Your task to perform on an android device: Open calendar and show me the third week of next month Image 0: 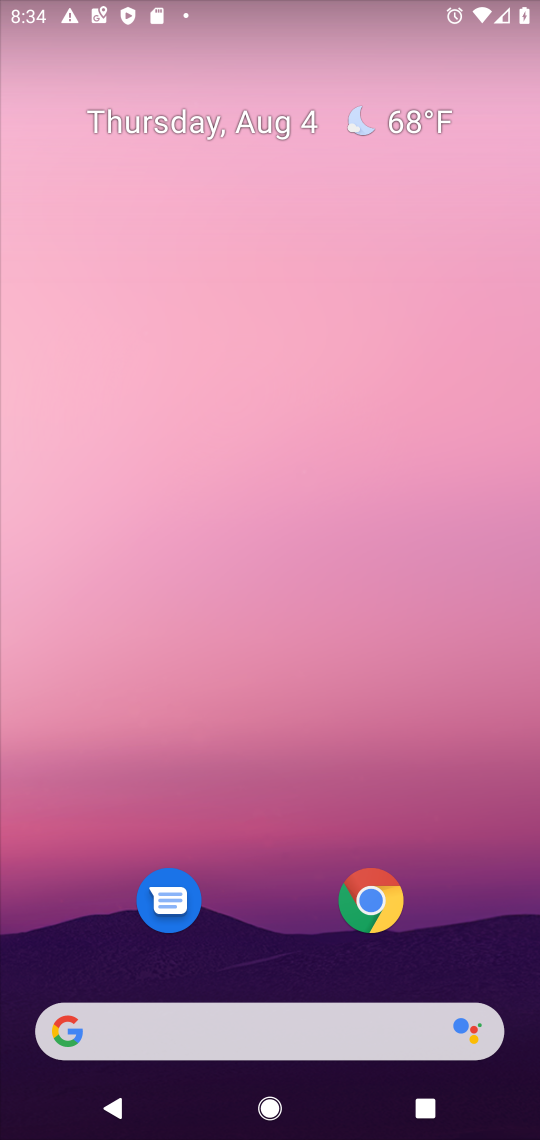
Step 0: drag from (278, 1025) to (239, 143)
Your task to perform on an android device: Open calendar and show me the third week of next month Image 1: 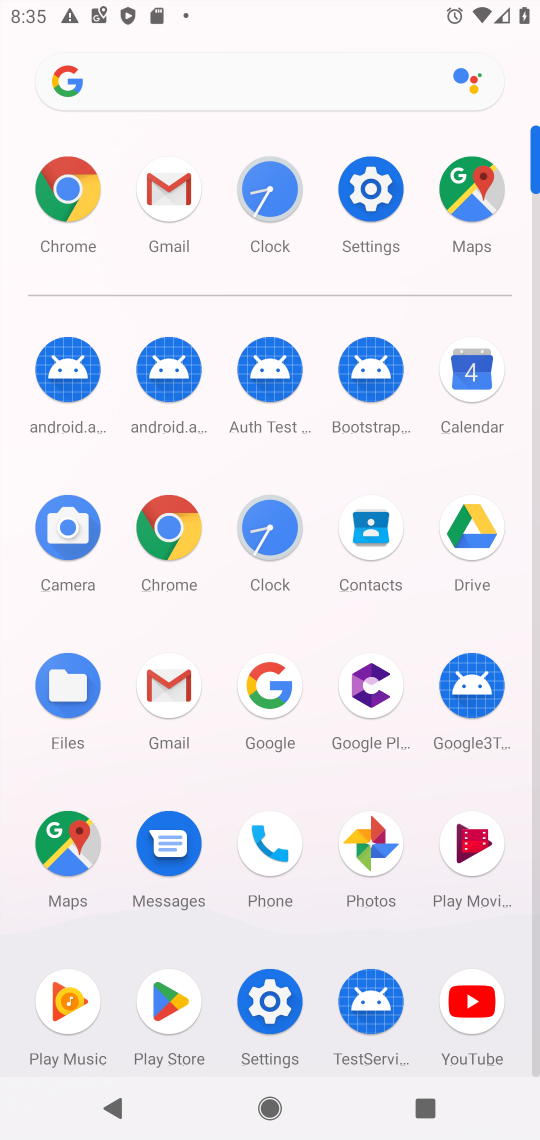
Step 1: click (475, 368)
Your task to perform on an android device: Open calendar and show me the third week of next month Image 2: 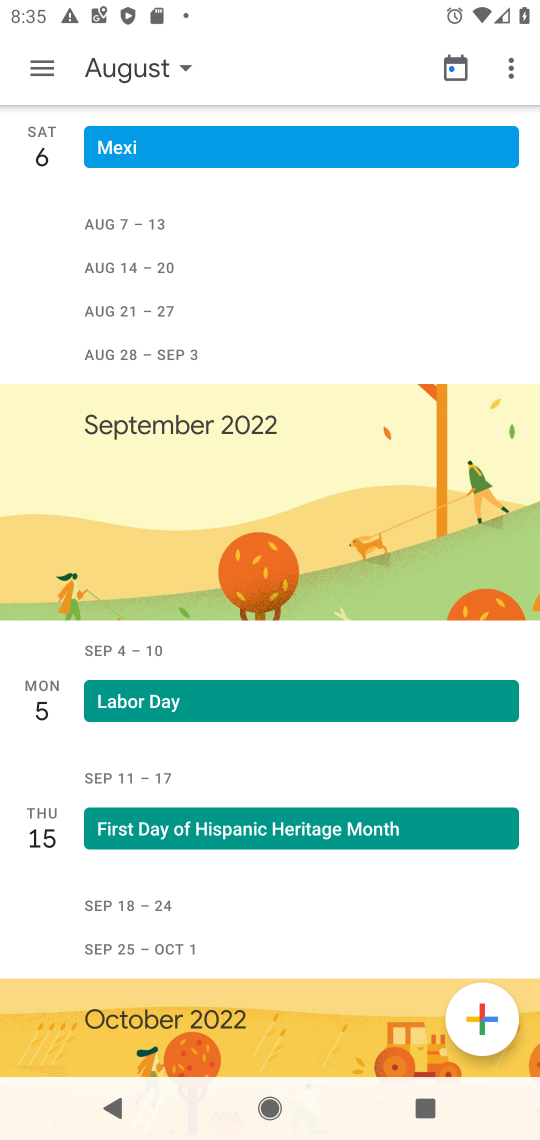
Step 2: click (186, 68)
Your task to perform on an android device: Open calendar and show me the third week of next month Image 3: 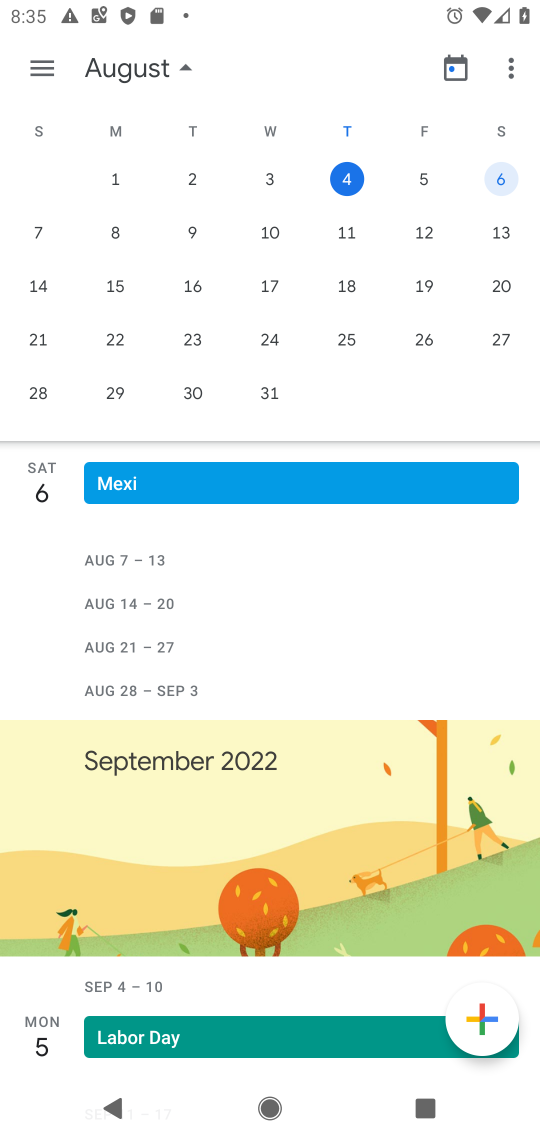
Step 3: drag from (462, 298) to (0, 256)
Your task to perform on an android device: Open calendar and show me the third week of next month Image 4: 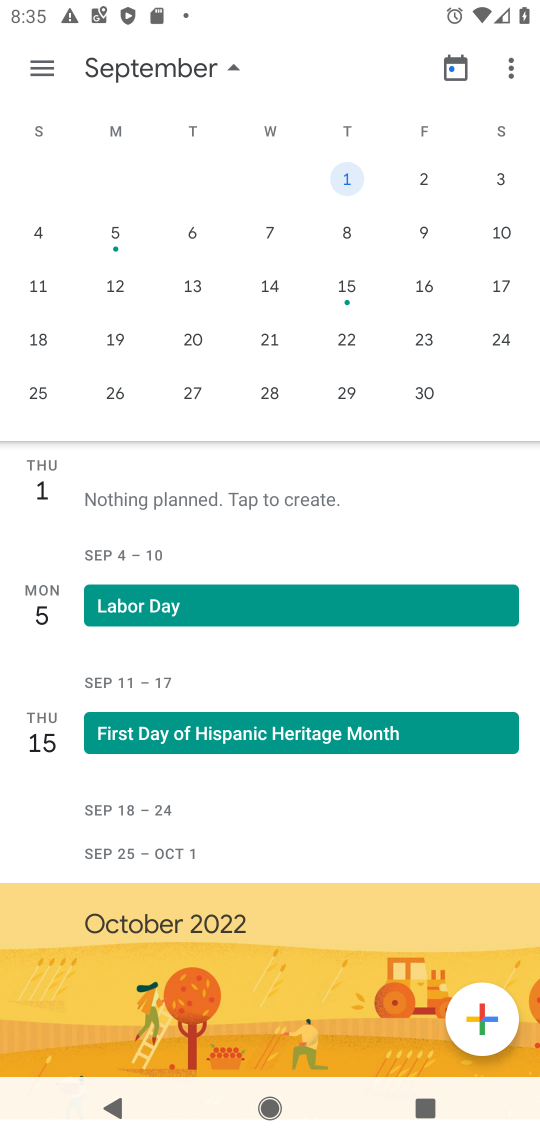
Step 4: click (117, 343)
Your task to perform on an android device: Open calendar and show me the third week of next month Image 5: 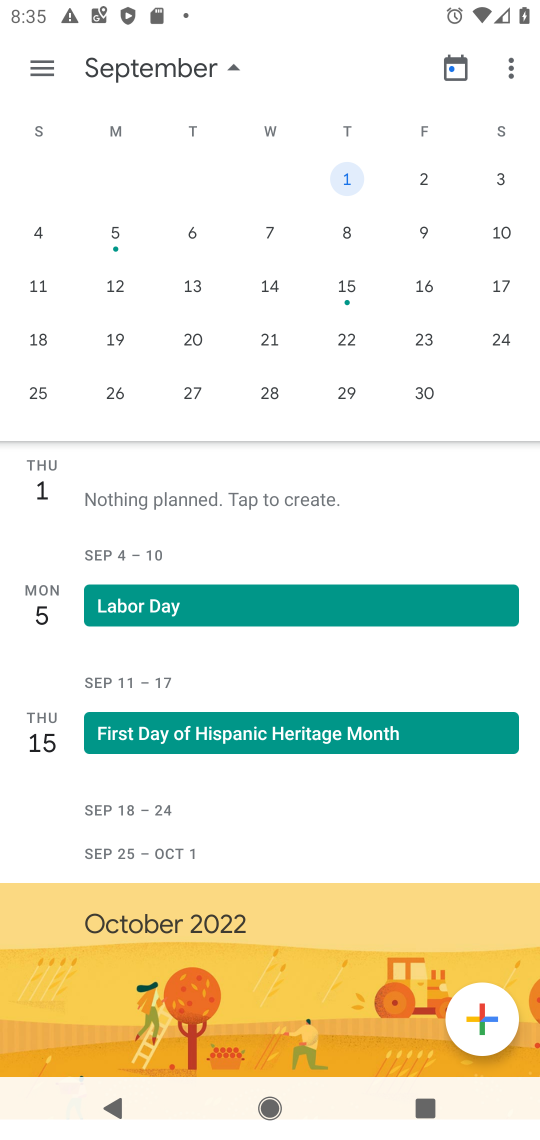
Step 5: click (113, 337)
Your task to perform on an android device: Open calendar and show me the third week of next month Image 6: 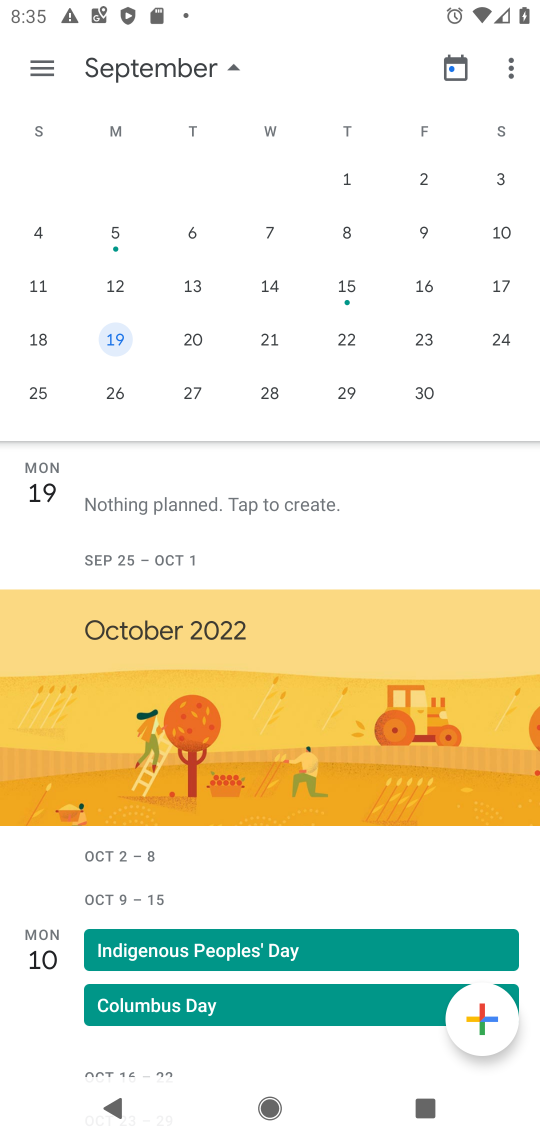
Step 6: click (42, 69)
Your task to perform on an android device: Open calendar and show me the third week of next month Image 7: 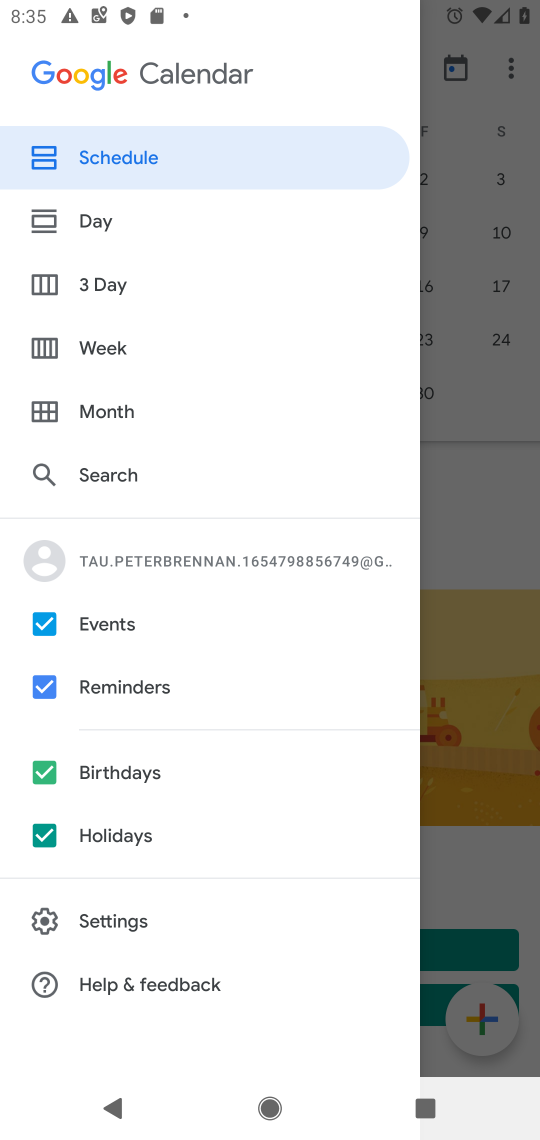
Step 7: click (89, 344)
Your task to perform on an android device: Open calendar and show me the third week of next month Image 8: 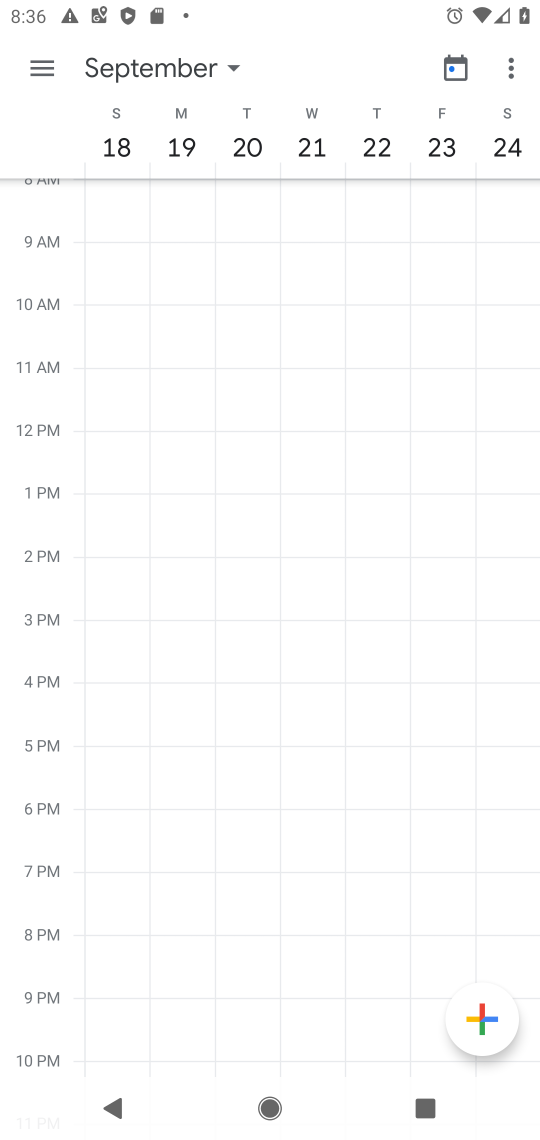
Step 8: task complete